Your task to perform on an android device: When is my next meeting? Image 0: 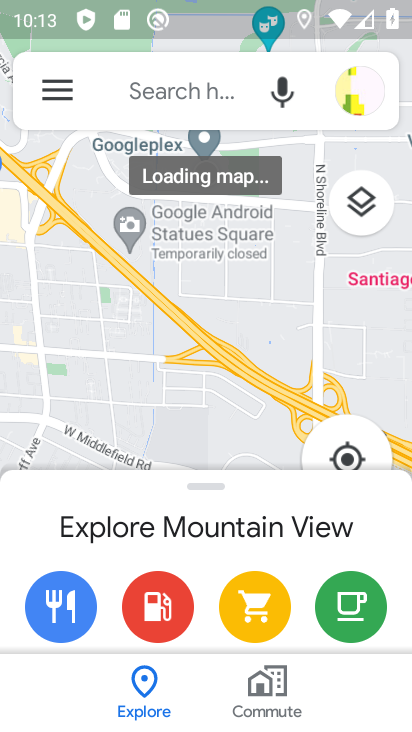
Step 0: press back button
Your task to perform on an android device: When is my next meeting? Image 1: 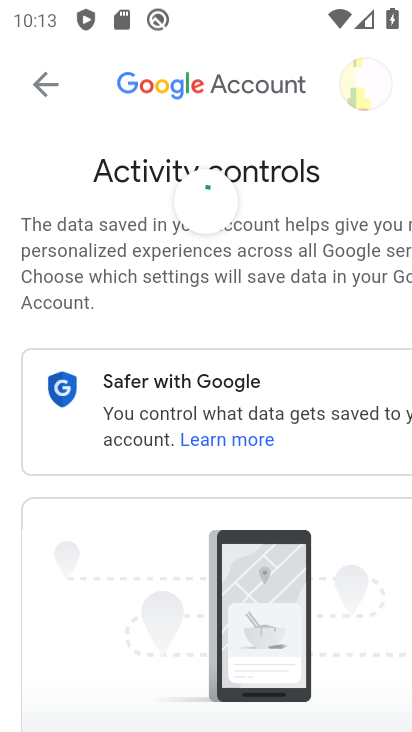
Step 1: press home button
Your task to perform on an android device: When is my next meeting? Image 2: 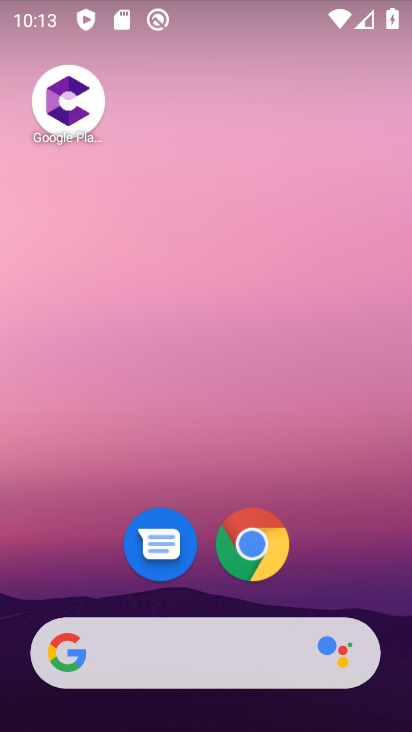
Step 2: drag from (355, 584) to (300, 222)
Your task to perform on an android device: When is my next meeting? Image 3: 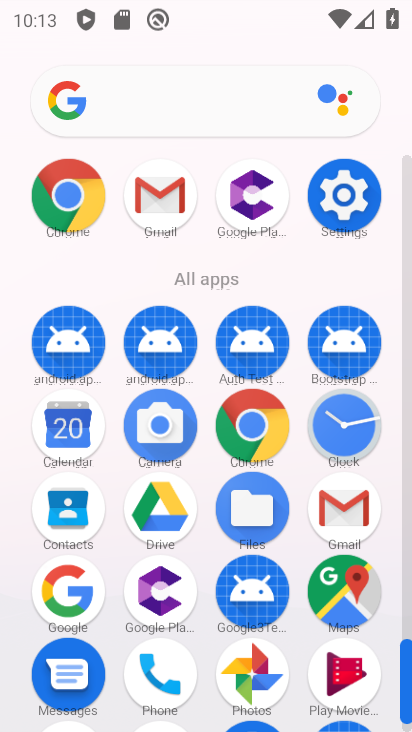
Step 3: click (59, 425)
Your task to perform on an android device: When is my next meeting? Image 4: 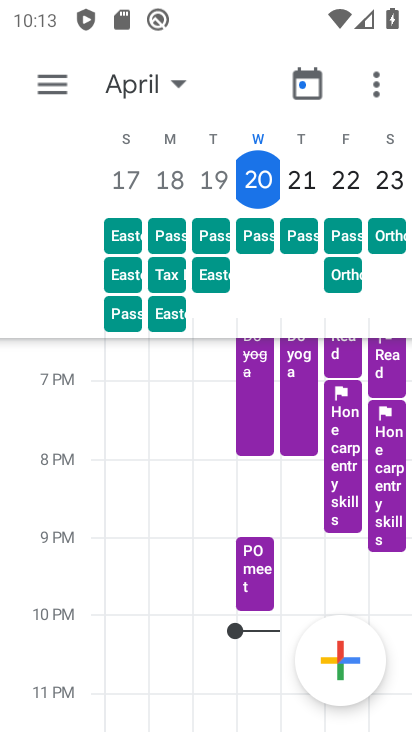
Step 4: click (63, 80)
Your task to perform on an android device: When is my next meeting? Image 5: 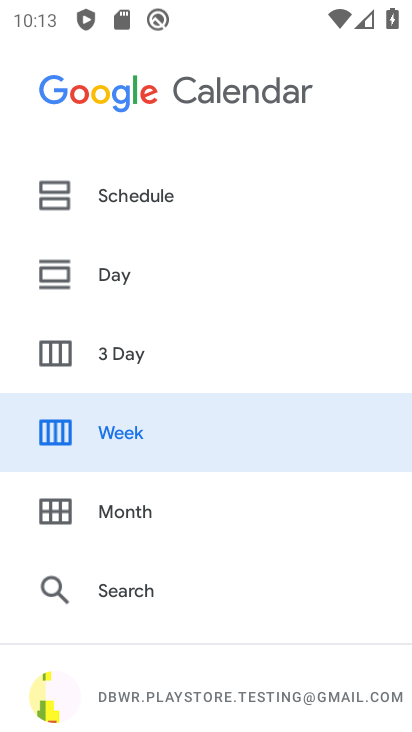
Step 5: click (164, 202)
Your task to perform on an android device: When is my next meeting? Image 6: 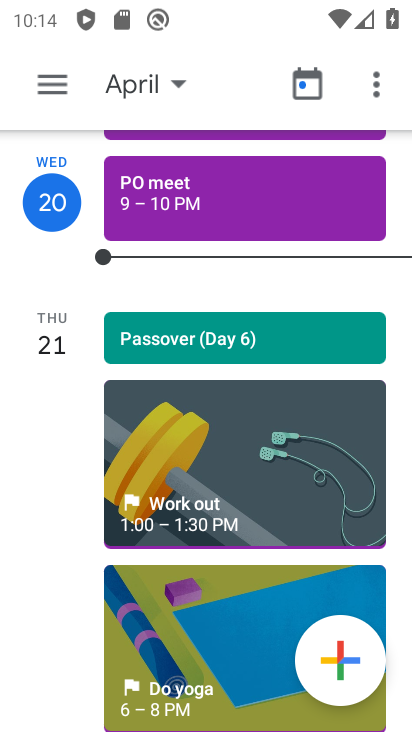
Step 6: task complete